Your task to perform on an android device: turn off improve location accuracy Image 0: 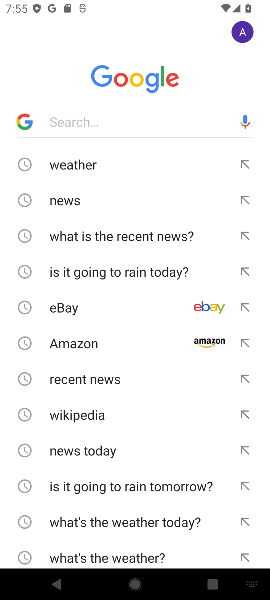
Step 0: press home button
Your task to perform on an android device: turn off improve location accuracy Image 1: 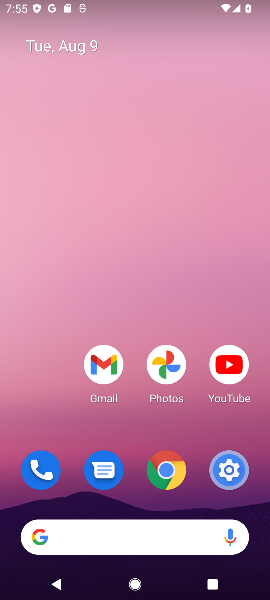
Step 1: click (228, 471)
Your task to perform on an android device: turn off improve location accuracy Image 2: 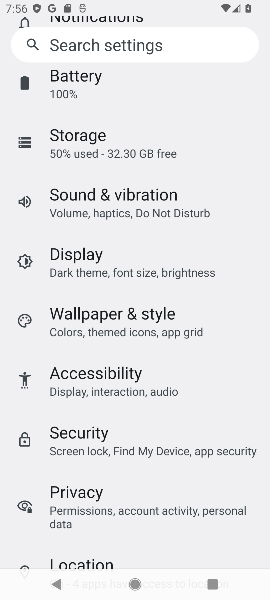
Step 2: click (103, 558)
Your task to perform on an android device: turn off improve location accuracy Image 3: 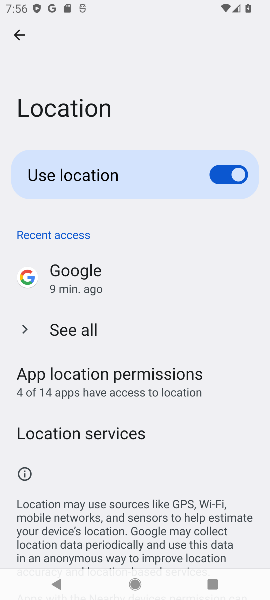
Step 3: click (125, 437)
Your task to perform on an android device: turn off improve location accuracy Image 4: 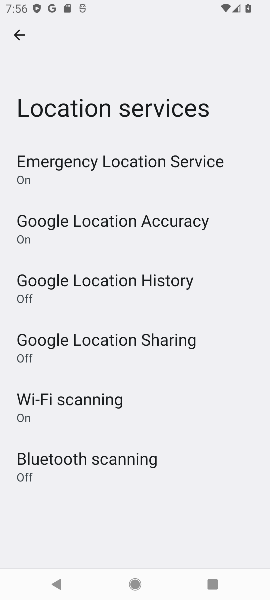
Step 4: click (194, 223)
Your task to perform on an android device: turn off improve location accuracy Image 5: 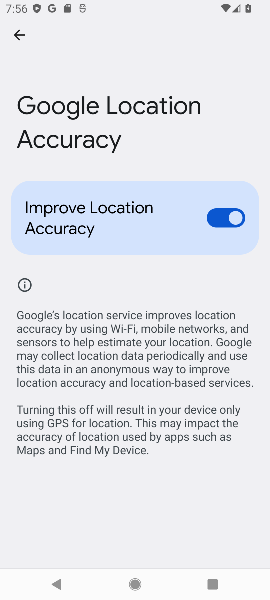
Step 5: click (228, 224)
Your task to perform on an android device: turn off improve location accuracy Image 6: 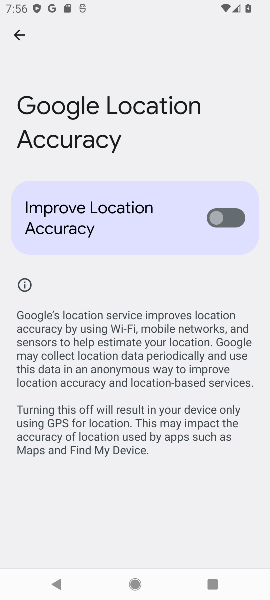
Step 6: task complete